Your task to perform on an android device: Open location settings Image 0: 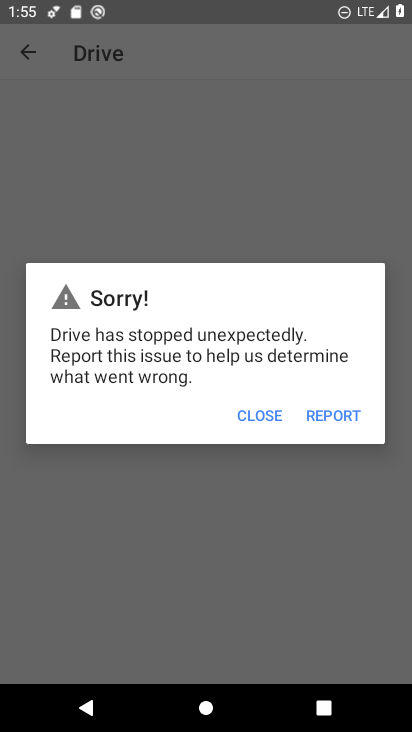
Step 0: press home button
Your task to perform on an android device: Open location settings Image 1: 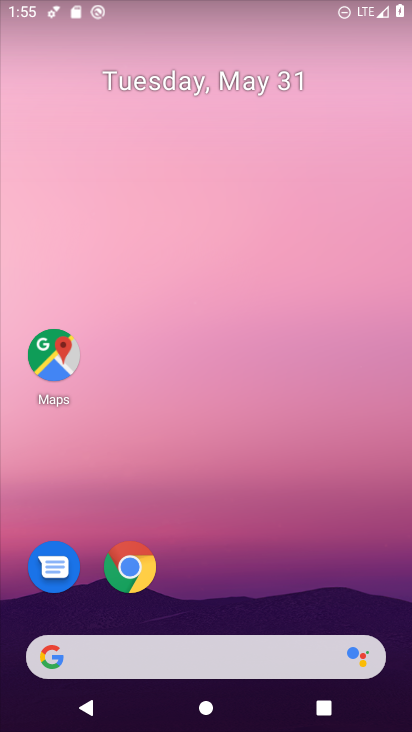
Step 1: drag from (263, 591) to (246, 181)
Your task to perform on an android device: Open location settings Image 2: 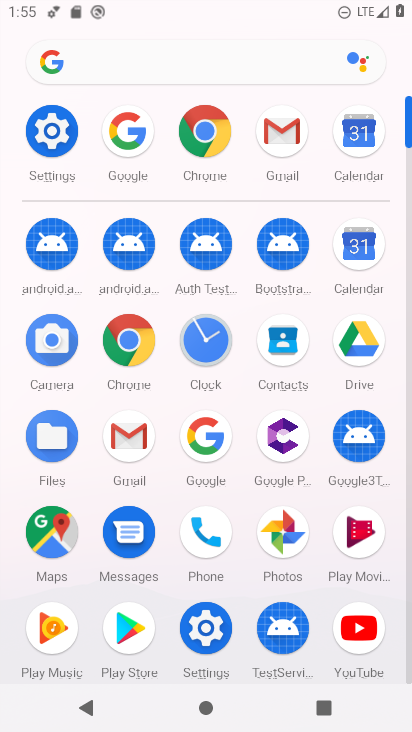
Step 2: click (27, 122)
Your task to perform on an android device: Open location settings Image 3: 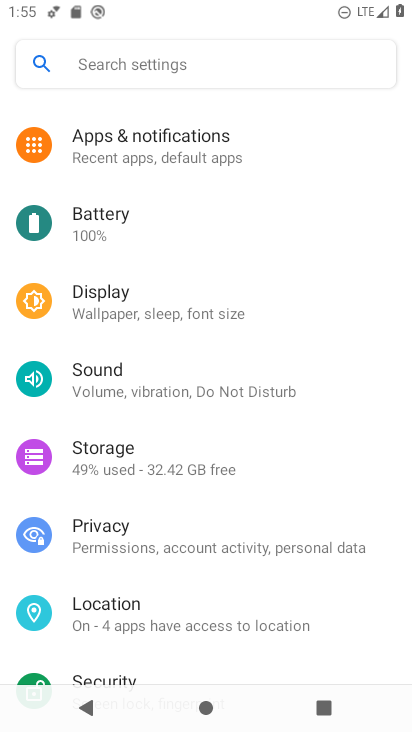
Step 3: click (188, 606)
Your task to perform on an android device: Open location settings Image 4: 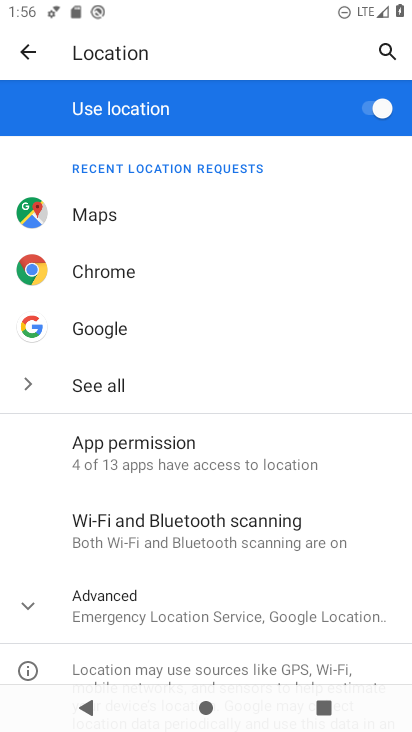
Step 4: task complete